Your task to perform on an android device: check battery use Image 0: 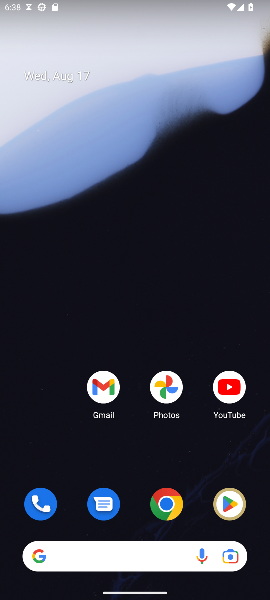
Step 0: drag from (124, 433) to (105, 149)
Your task to perform on an android device: check battery use Image 1: 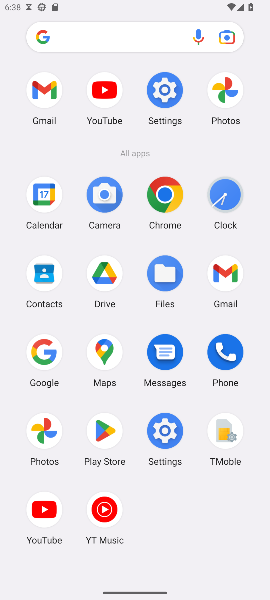
Step 1: click (174, 436)
Your task to perform on an android device: check battery use Image 2: 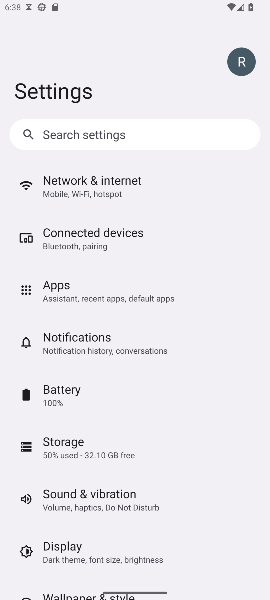
Step 2: click (112, 399)
Your task to perform on an android device: check battery use Image 3: 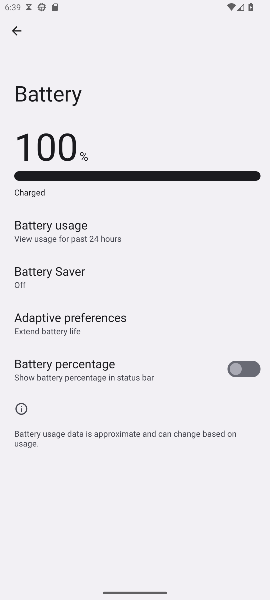
Step 3: click (126, 233)
Your task to perform on an android device: check battery use Image 4: 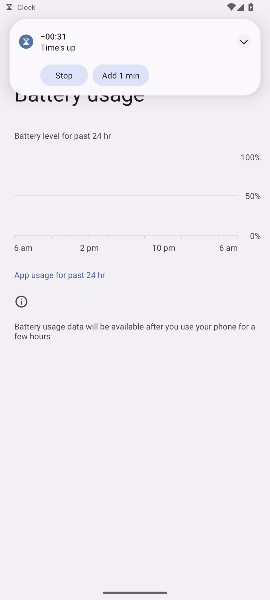
Step 4: click (62, 86)
Your task to perform on an android device: check battery use Image 5: 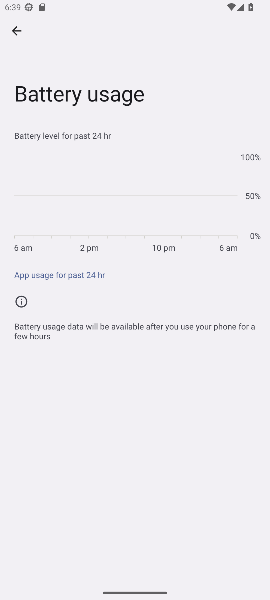
Step 5: task complete